Your task to perform on an android device: Open location settings Image 0: 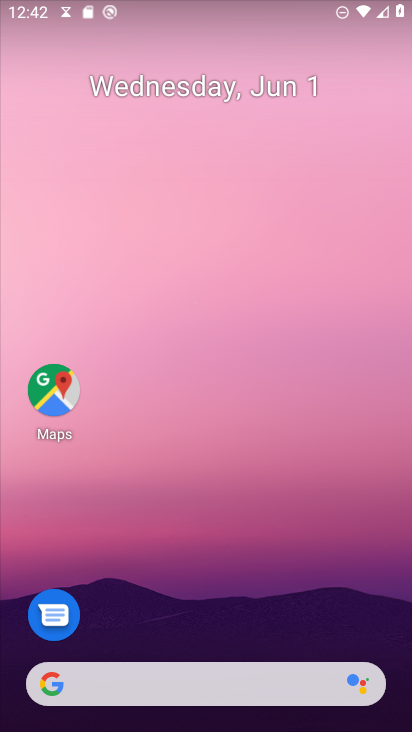
Step 0: drag from (243, 638) to (306, 49)
Your task to perform on an android device: Open location settings Image 1: 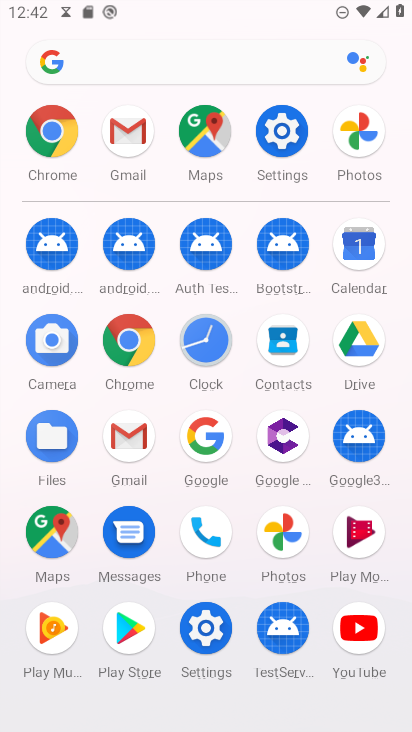
Step 1: click (200, 635)
Your task to perform on an android device: Open location settings Image 2: 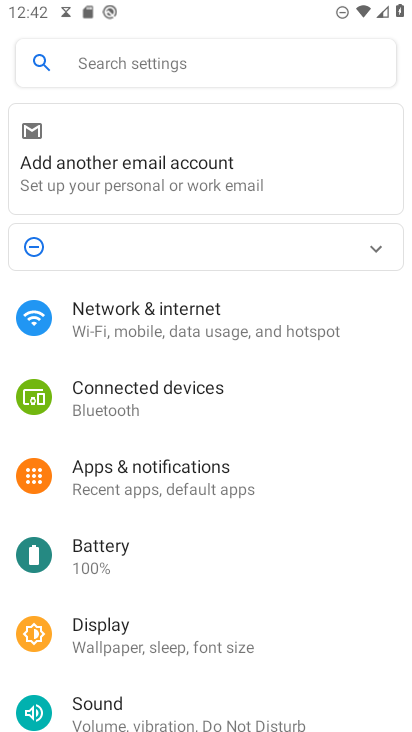
Step 2: drag from (346, 601) to (342, 277)
Your task to perform on an android device: Open location settings Image 3: 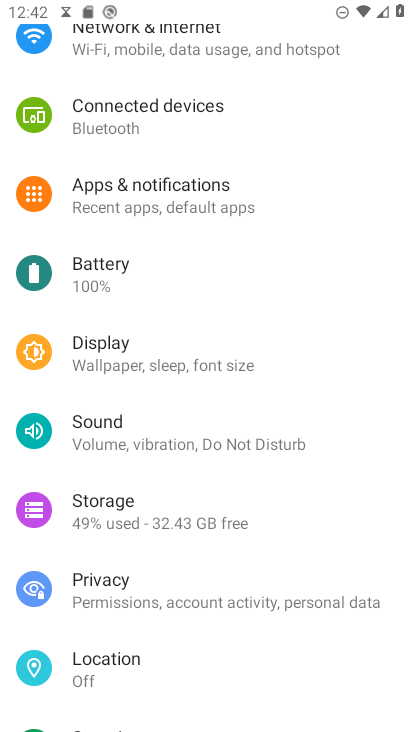
Step 3: drag from (162, 667) to (255, 379)
Your task to perform on an android device: Open location settings Image 4: 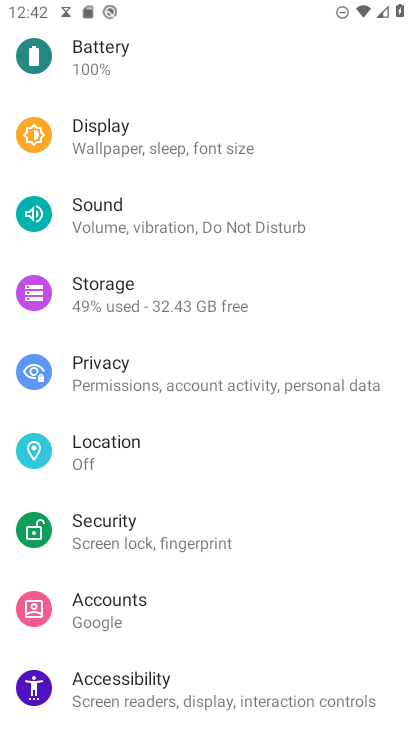
Step 4: click (189, 443)
Your task to perform on an android device: Open location settings Image 5: 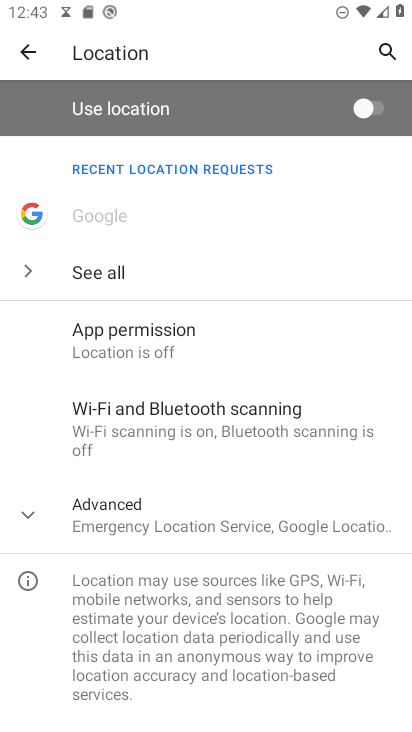
Step 5: click (167, 507)
Your task to perform on an android device: Open location settings Image 6: 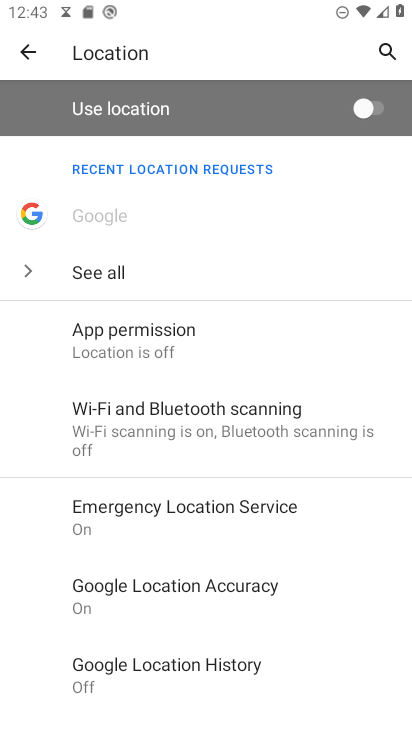
Step 6: task complete